Your task to perform on an android device: turn on improve location accuracy Image 0: 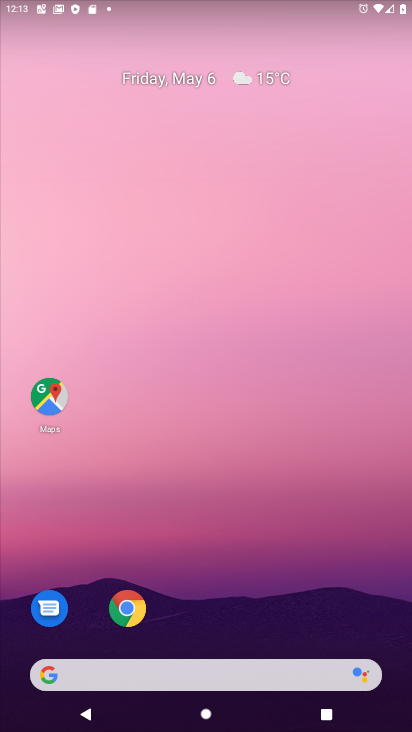
Step 0: drag from (232, 632) to (220, 118)
Your task to perform on an android device: turn on improve location accuracy Image 1: 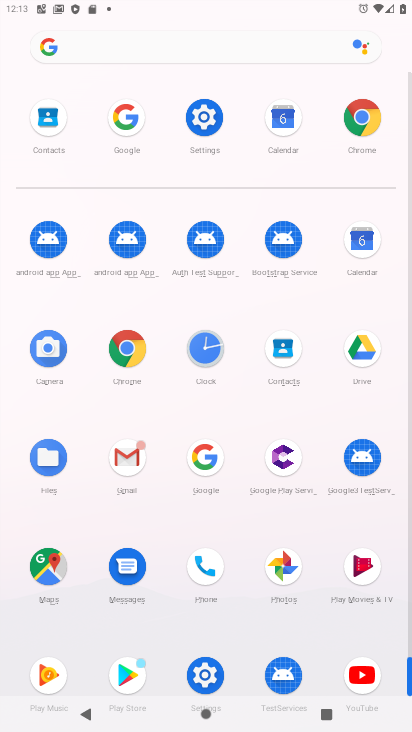
Step 1: click (211, 124)
Your task to perform on an android device: turn on improve location accuracy Image 2: 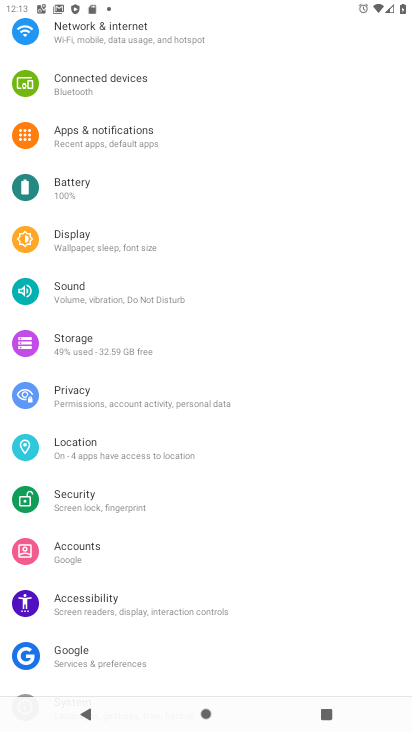
Step 2: click (144, 455)
Your task to perform on an android device: turn on improve location accuracy Image 3: 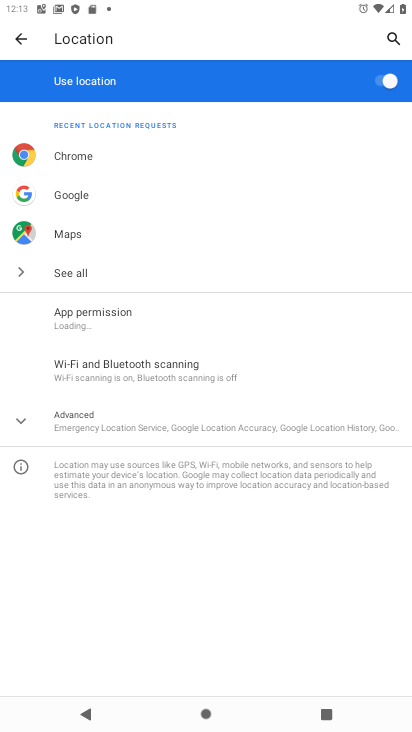
Step 3: click (17, 424)
Your task to perform on an android device: turn on improve location accuracy Image 4: 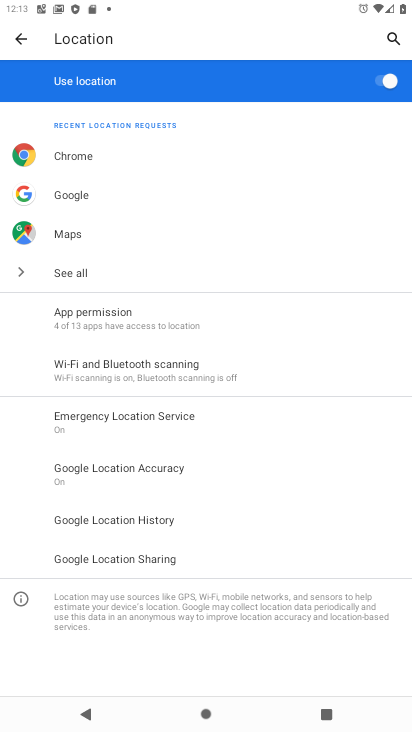
Step 4: click (129, 465)
Your task to perform on an android device: turn on improve location accuracy Image 5: 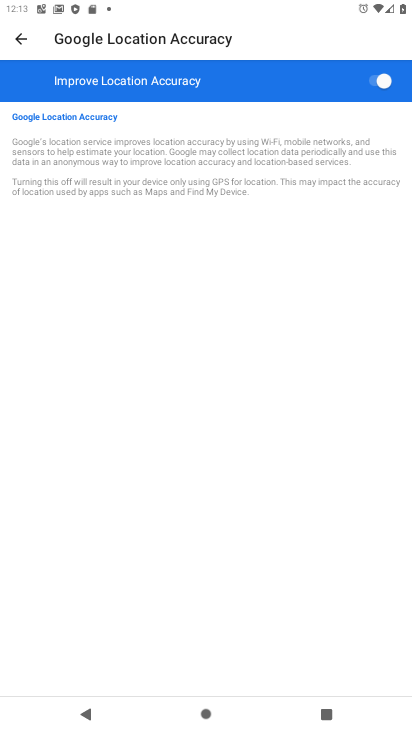
Step 5: task complete